Your task to perform on an android device: When is my next appointment? Image 0: 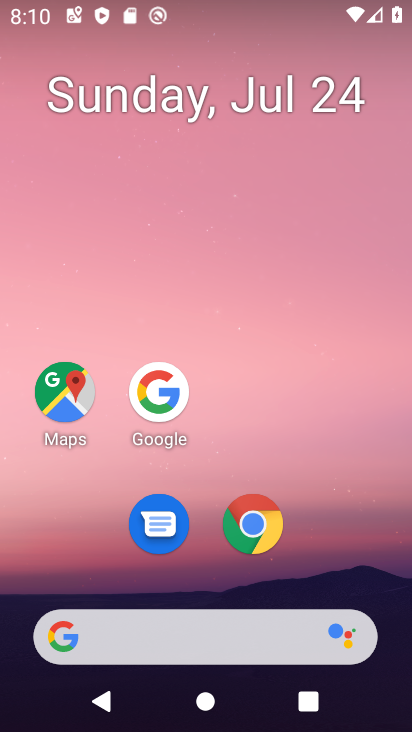
Step 0: drag from (182, 583) to (300, 108)
Your task to perform on an android device: When is my next appointment? Image 1: 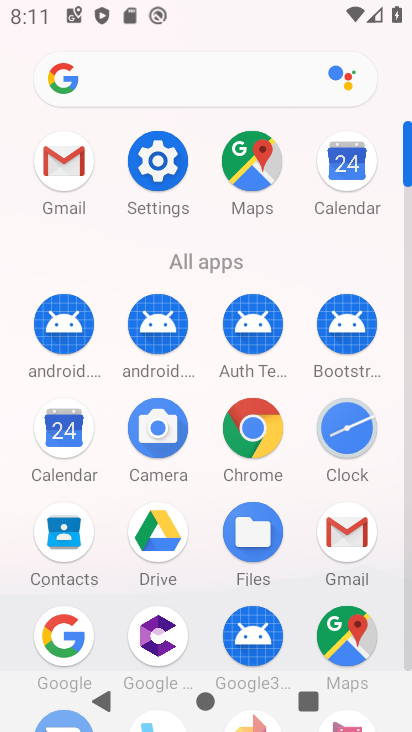
Step 1: click (63, 432)
Your task to perform on an android device: When is my next appointment? Image 2: 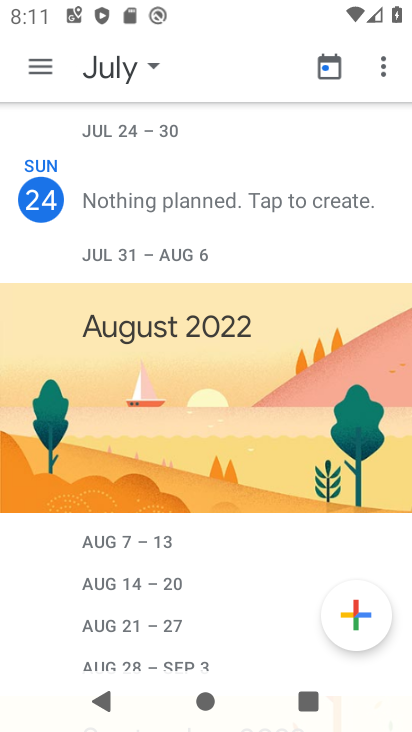
Step 2: task complete